Your task to perform on an android device: Search for sushi restaurants on Maps Image 0: 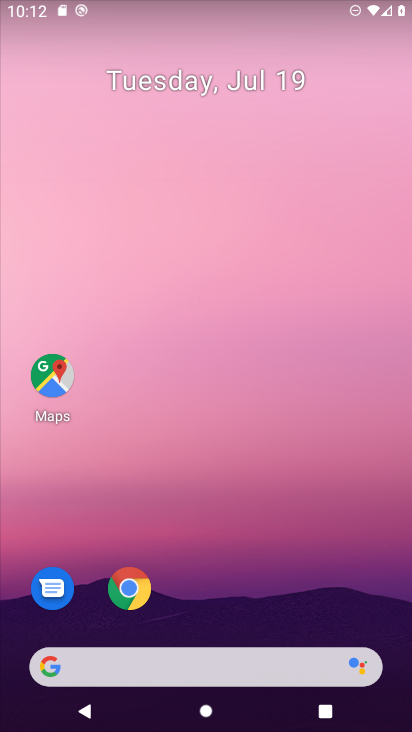
Step 0: drag from (265, 578) to (273, 49)
Your task to perform on an android device: Search for sushi restaurants on Maps Image 1: 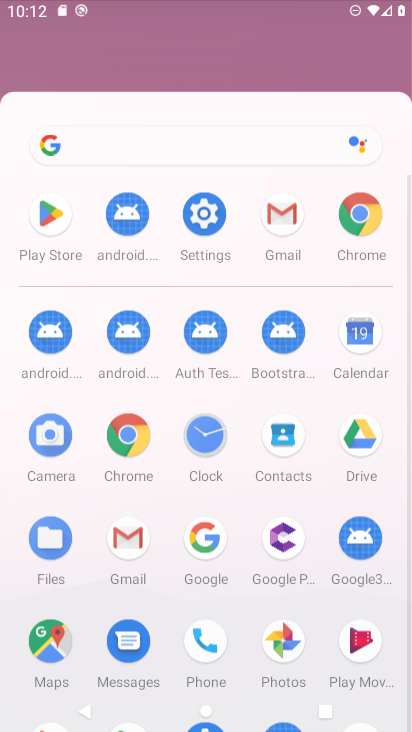
Step 1: drag from (224, 422) to (214, 32)
Your task to perform on an android device: Search for sushi restaurants on Maps Image 2: 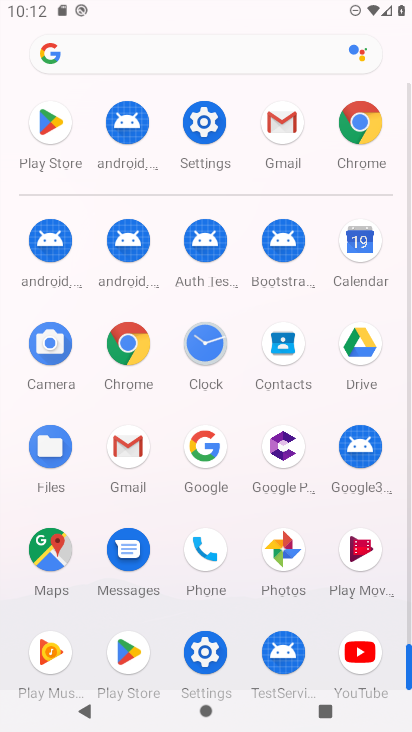
Step 2: drag from (162, 115) to (169, 77)
Your task to perform on an android device: Search for sushi restaurants on Maps Image 3: 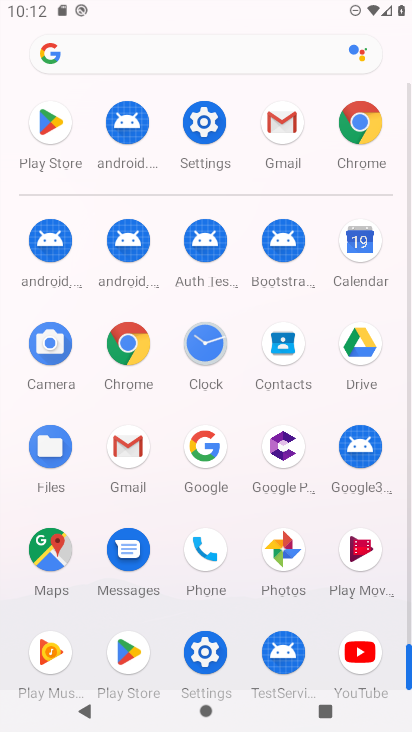
Step 3: click (52, 542)
Your task to perform on an android device: Search for sushi restaurants on Maps Image 4: 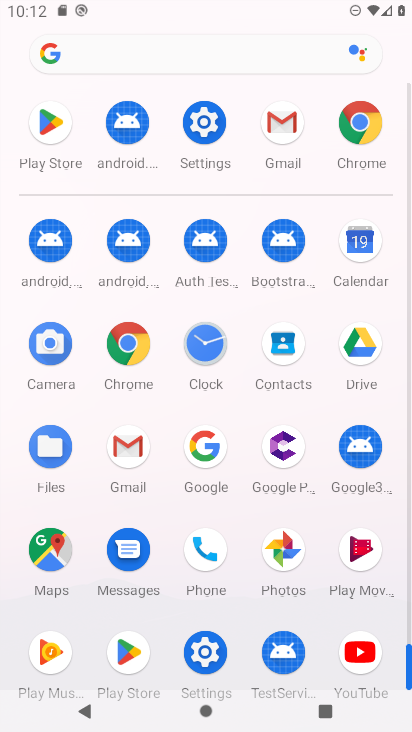
Step 4: click (52, 542)
Your task to perform on an android device: Search for sushi restaurants on Maps Image 5: 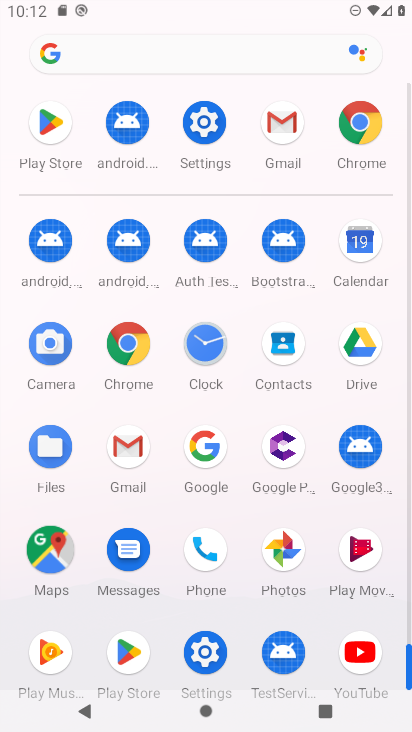
Step 5: click (52, 542)
Your task to perform on an android device: Search for sushi restaurants on Maps Image 6: 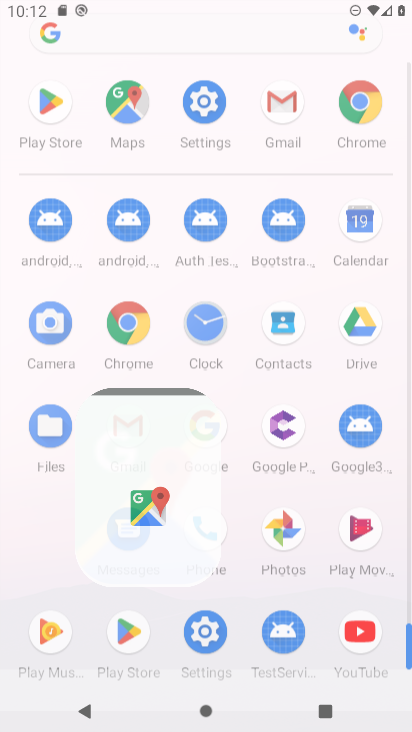
Step 6: click (52, 542)
Your task to perform on an android device: Search for sushi restaurants on Maps Image 7: 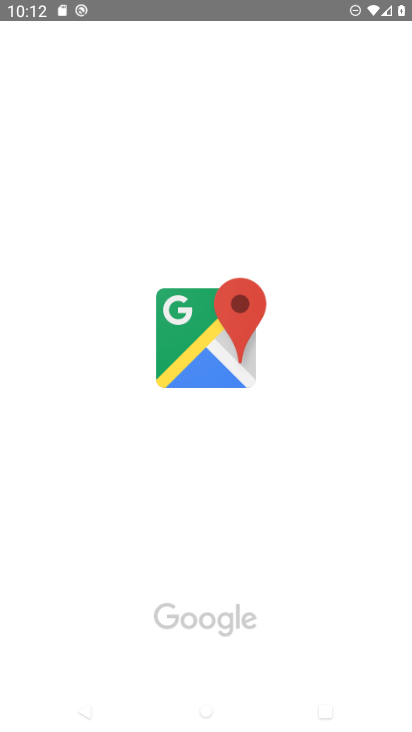
Step 7: click (52, 542)
Your task to perform on an android device: Search for sushi restaurants on Maps Image 8: 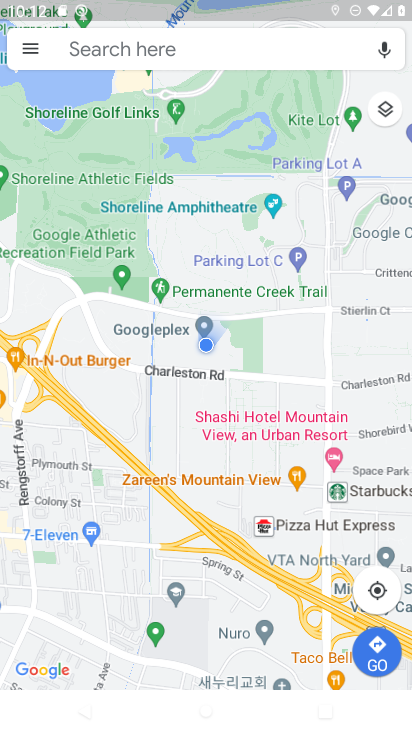
Step 8: click (64, 45)
Your task to perform on an android device: Search for sushi restaurants on Maps Image 9: 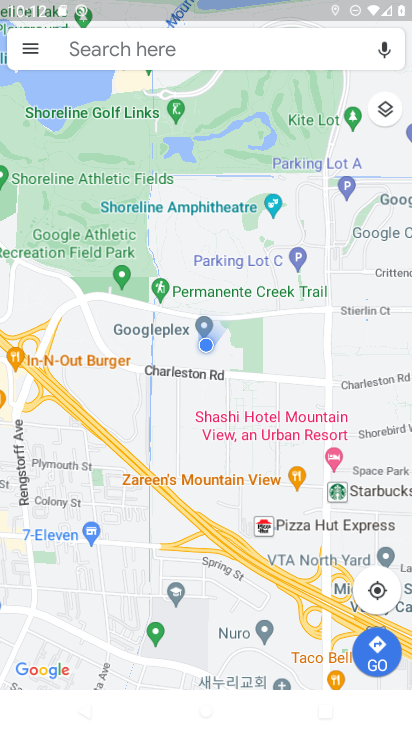
Step 9: click (68, 47)
Your task to perform on an android device: Search for sushi restaurants on Maps Image 10: 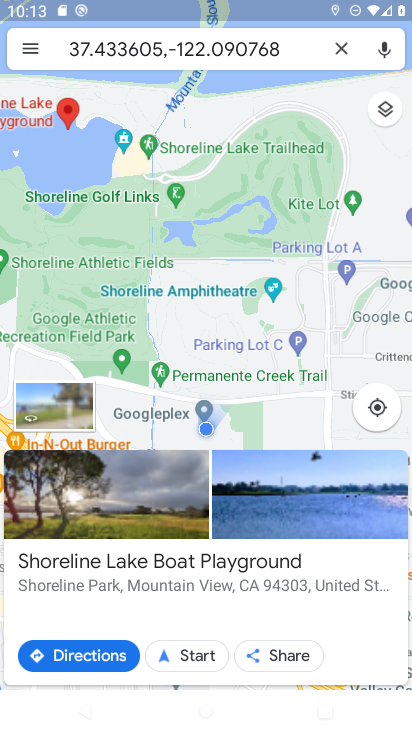
Step 10: click (346, 44)
Your task to perform on an android device: Search for sushi restaurants on Maps Image 11: 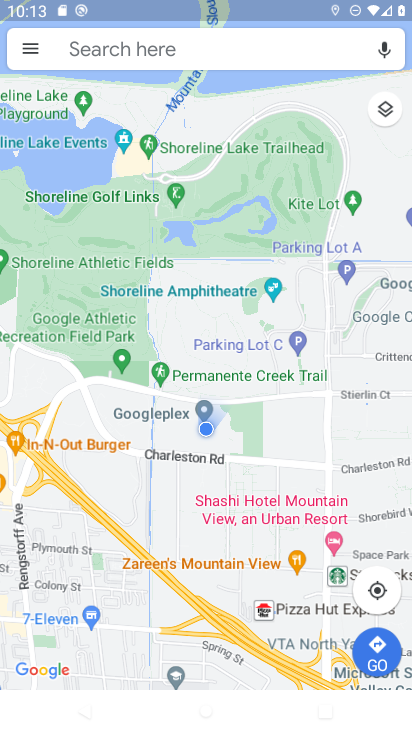
Step 11: click (89, 49)
Your task to perform on an android device: Search for sushi restaurants on Maps Image 12: 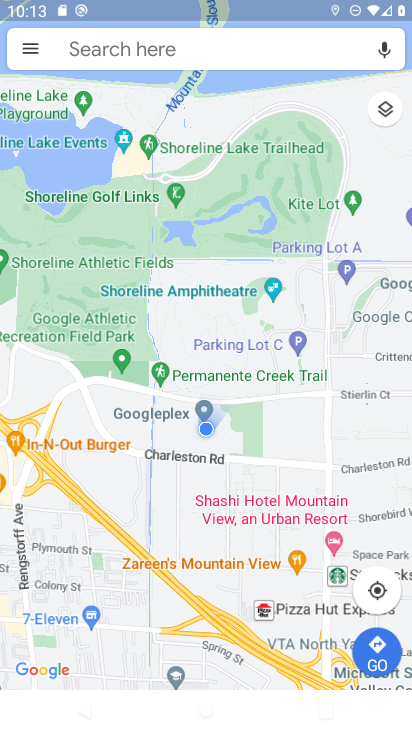
Step 12: click (89, 49)
Your task to perform on an android device: Search for sushi restaurants on Maps Image 13: 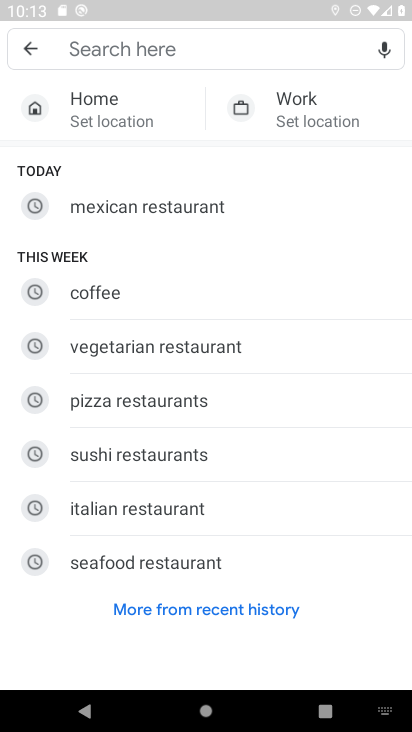
Step 13: click (143, 448)
Your task to perform on an android device: Search for sushi restaurants on Maps Image 14: 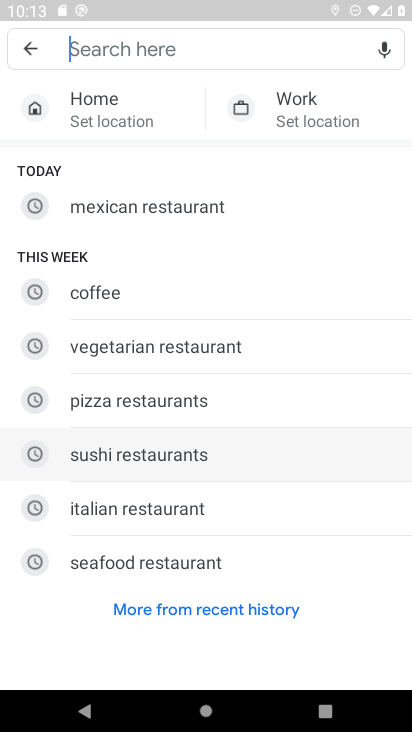
Step 14: click (144, 448)
Your task to perform on an android device: Search for sushi restaurants on Maps Image 15: 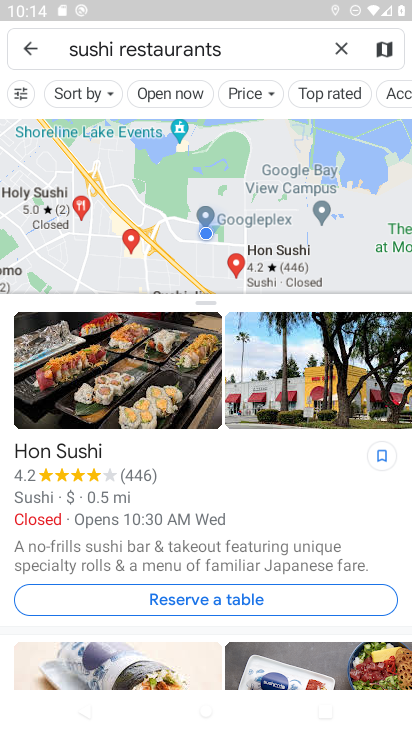
Step 15: task complete